Your task to perform on an android device: toggle improve location accuracy Image 0: 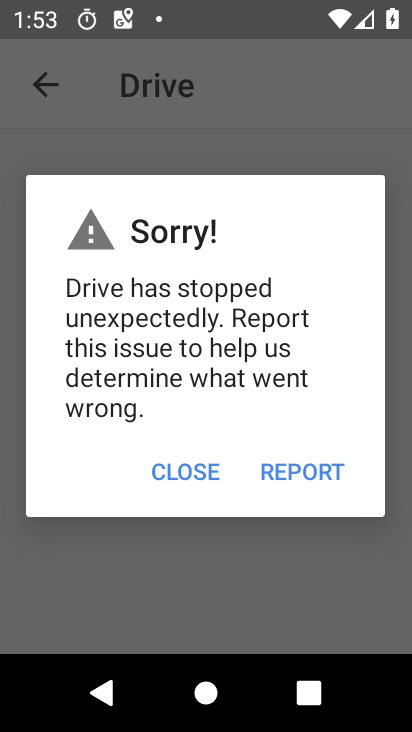
Step 0: press home button
Your task to perform on an android device: toggle improve location accuracy Image 1: 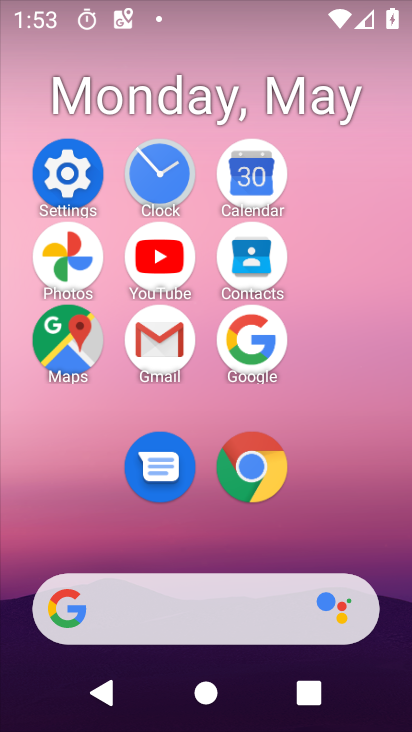
Step 1: click (81, 170)
Your task to perform on an android device: toggle improve location accuracy Image 2: 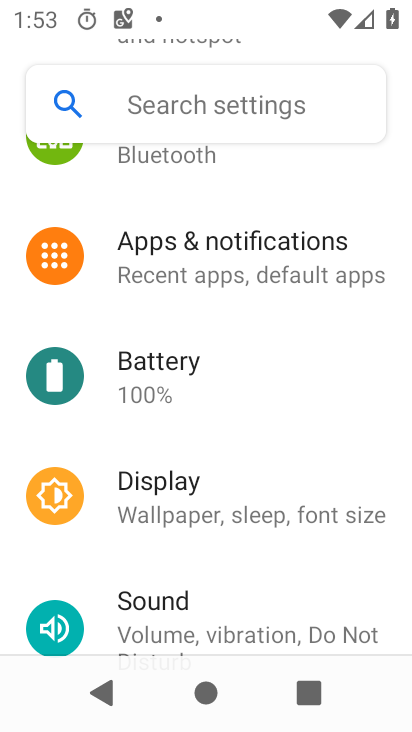
Step 2: drag from (251, 584) to (270, 275)
Your task to perform on an android device: toggle improve location accuracy Image 3: 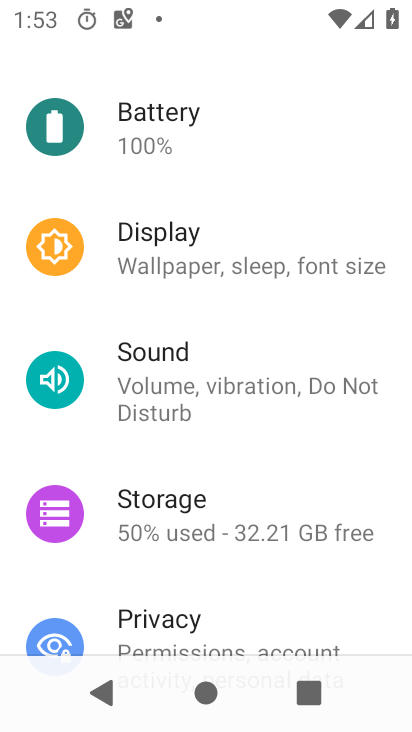
Step 3: drag from (234, 638) to (292, 257)
Your task to perform on an android device: toggle improve location accuracy Image 4: 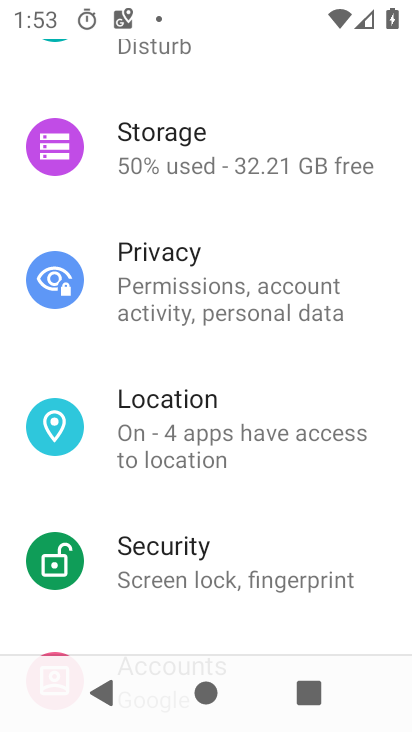
Step 4: click (255, 465)
Your task to perform on an android device: toggle improve location accuracy Image 5: 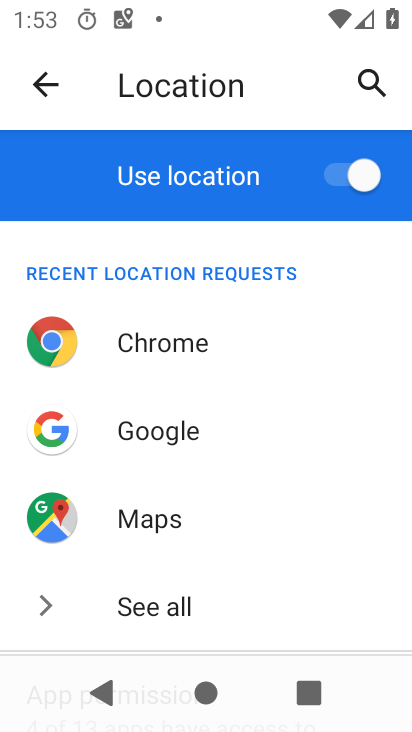
Step 5: drag from (257, 574) to (311, 250)
Your task to perform on an android device: toggle improve location accuracy Image 6: 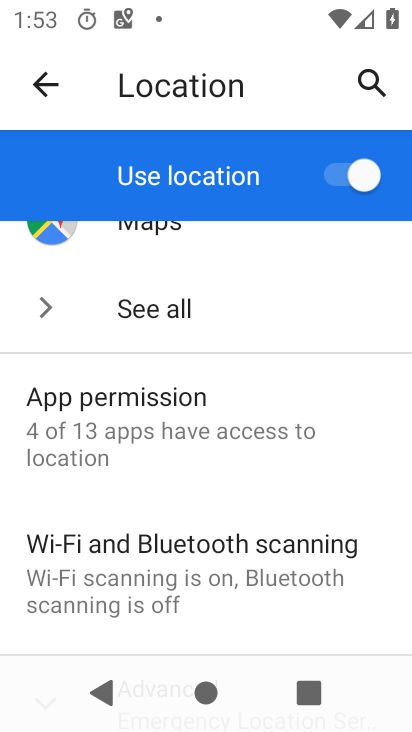
Step 6: drag from (249, 604) to (299, 237)
Your task to perform on an android device: toggle improve location accuracy Image 7: 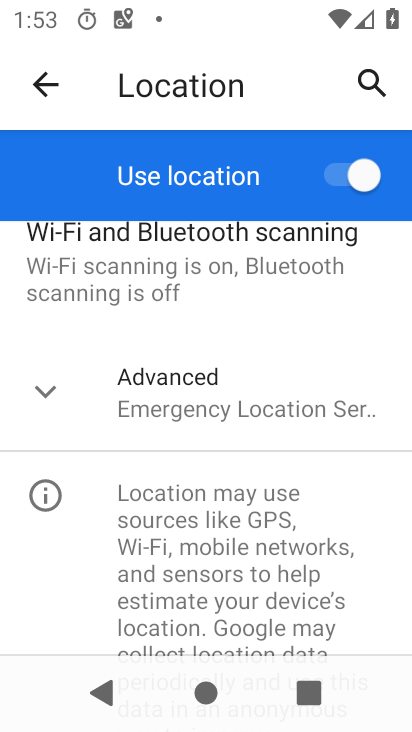
Step 7: click (233, 398)
Your task to perform on an android device: toggle improve location accuracy Image 8: 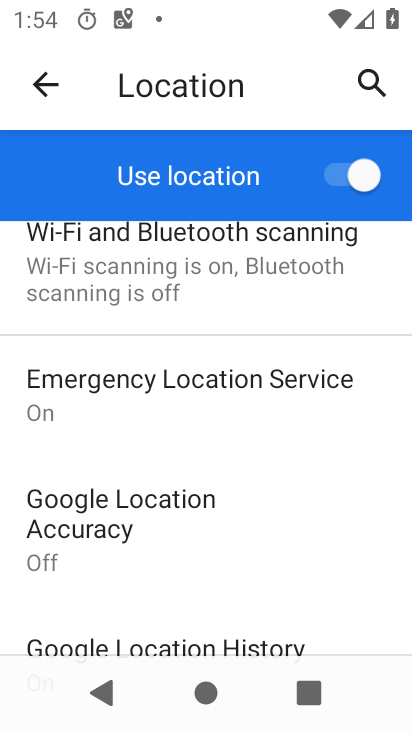
Step 8: click (198, 518)
Your task to perform on an android device: toggle improve location accuracy Image 9: 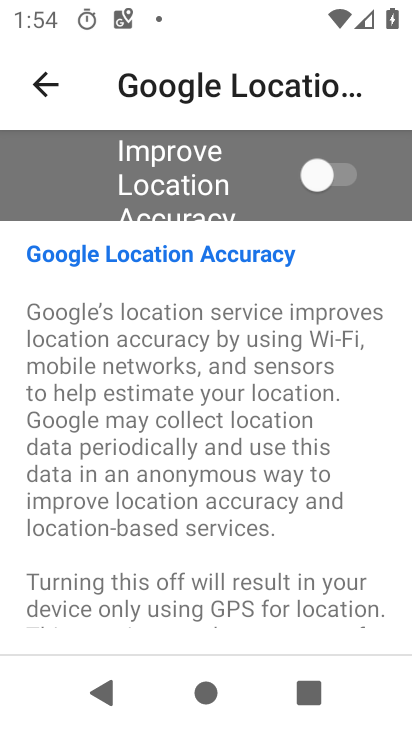
Step 9: click (329, 190)
Your task to perform on an android device: toggle improve location accuracy Image 10: 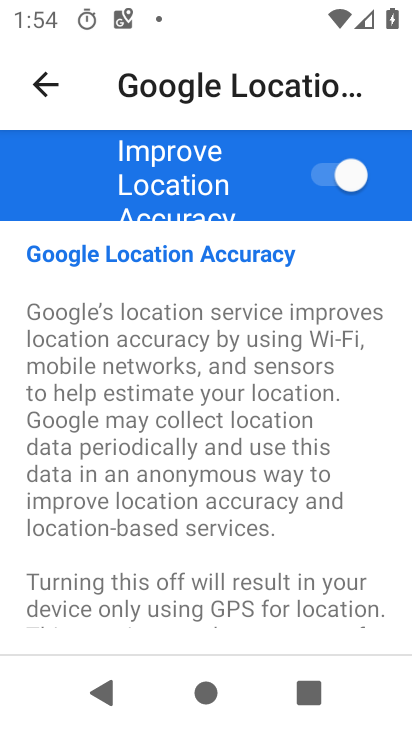
Step 10: task complete